Your task to perform on an android device: delete a single message in the gmail app Image 0: 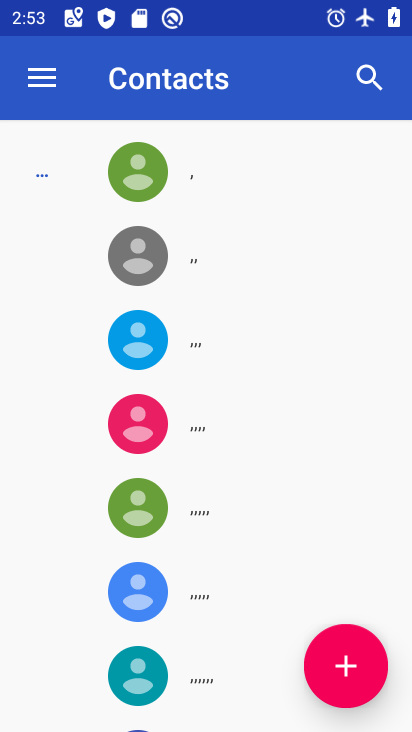
Step 0: press home button
Your task to perform on an android device: delete a single message in the gmail app Image 1: 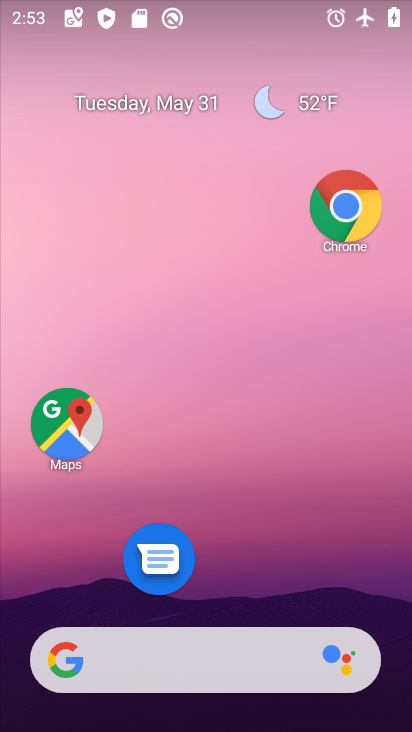
Step 1: drag from (293, 580) to (153, 39)
Your task to perform on an android device: delete a single message in the gmail app Image 2: 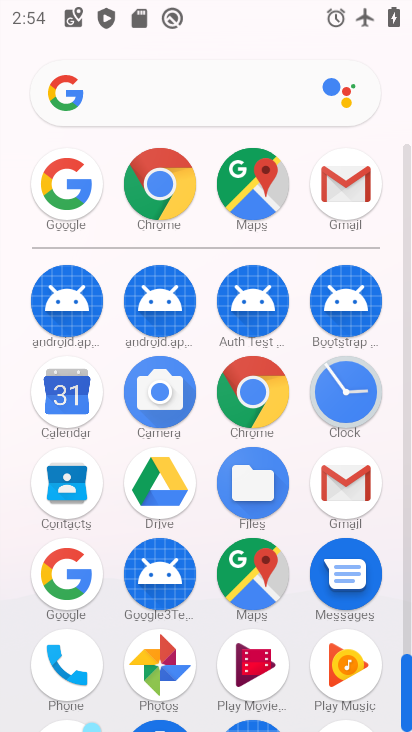
Step 2: click (326, 491)
Your task to perform on an android device: delete a single message in the gmail app Image 3: 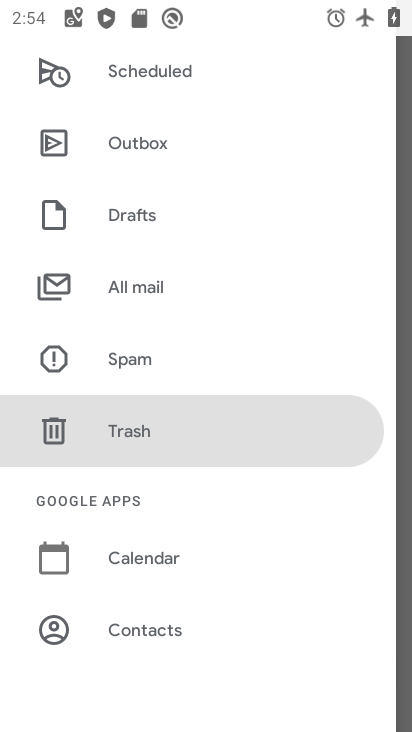
Step 3: click (207, 276)
Your task to perform on an android device: delete a single message in the gmail app Image 4: 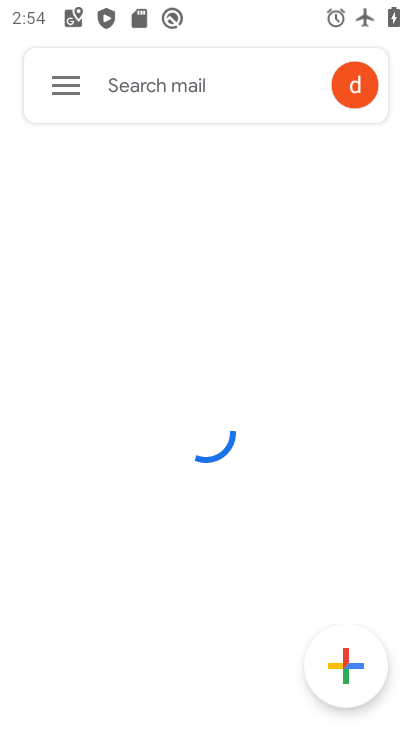
Step 4: task complete